Your task to perform on an android device: View the shopping cart on target.com. Add logitech g910 to the cart on target.com, then select checkout. Image 0: 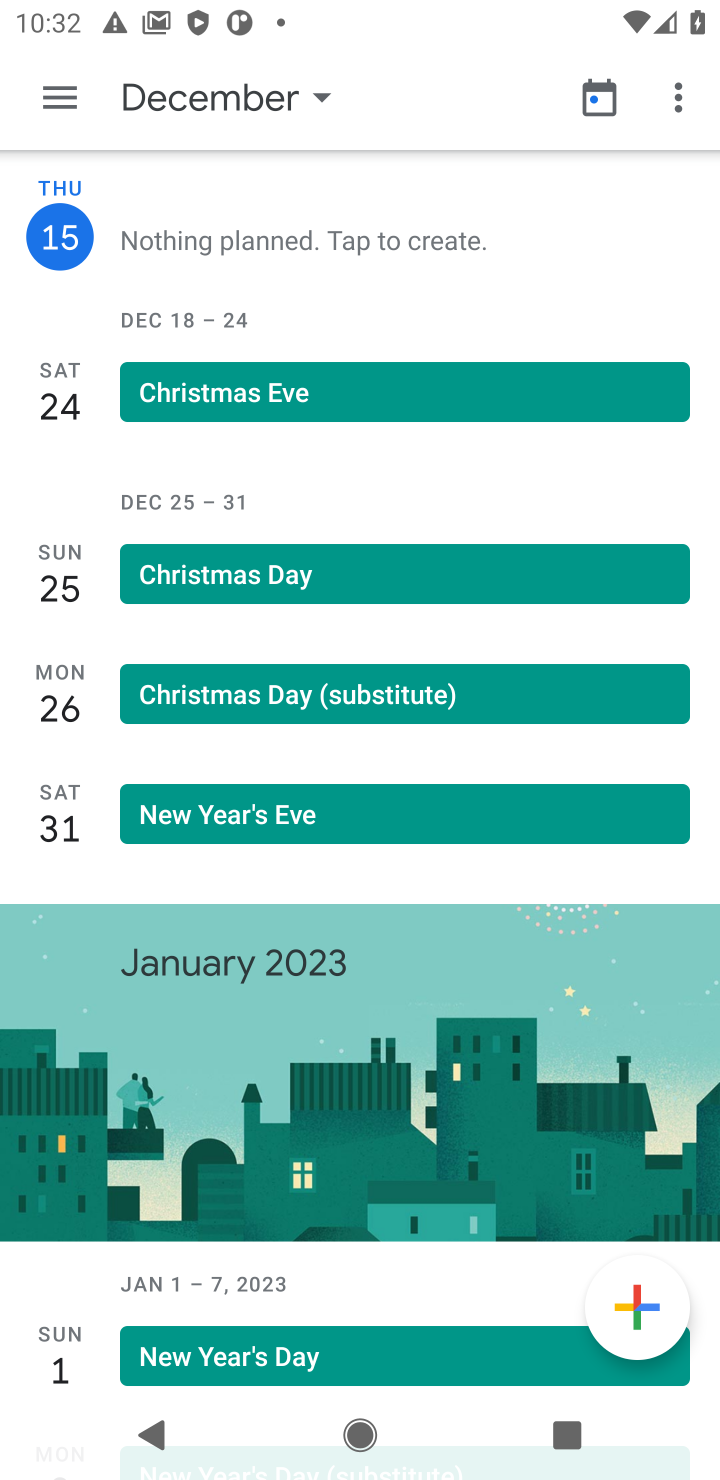
Step 0: press home button
Your task to perform on an android device: View the shopping cart on target.com. Add logitech g910 to the cart on target.com, then select checkout. Image 1: 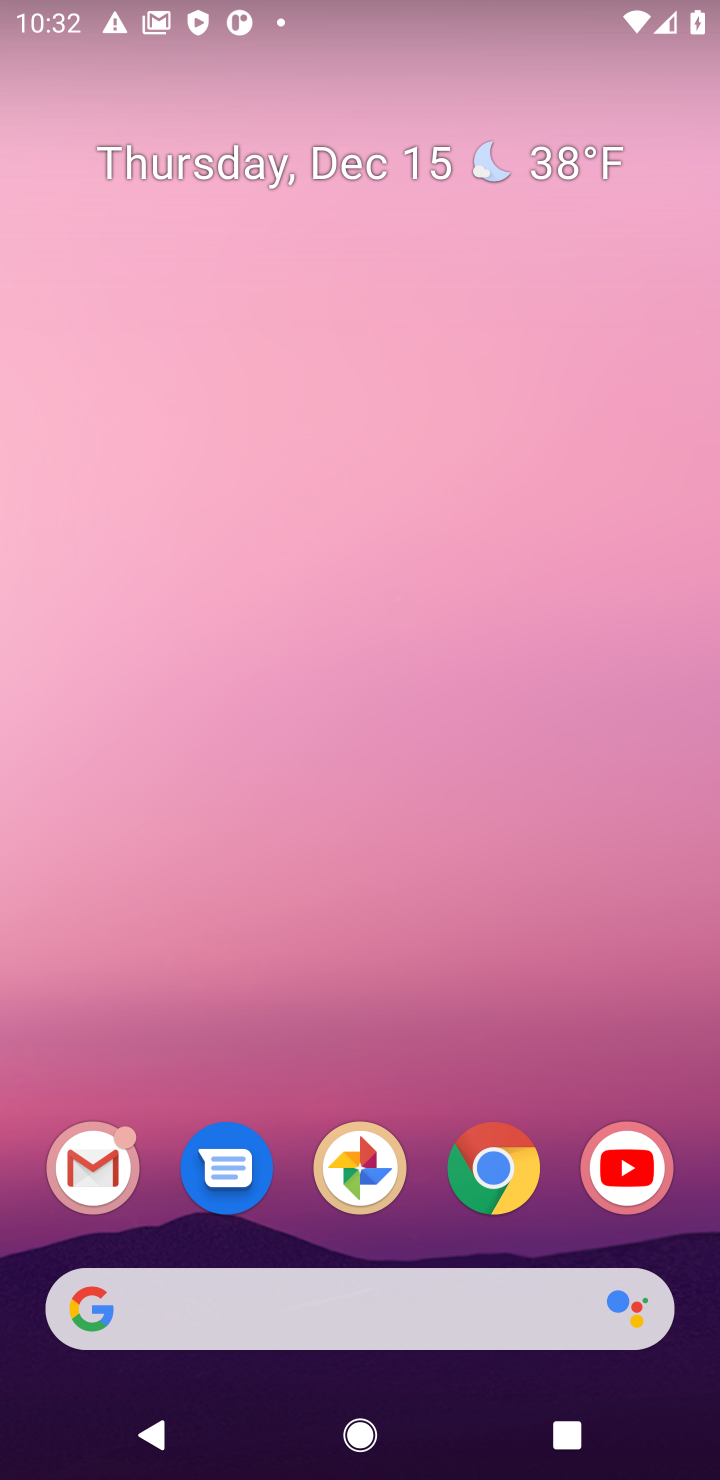
Step 1: click (495, 1164)
Your task to perform on an android device: View the shopping cart on target.com. Add logitech g910 to the cart on target.com, then select checkout. Image 2: 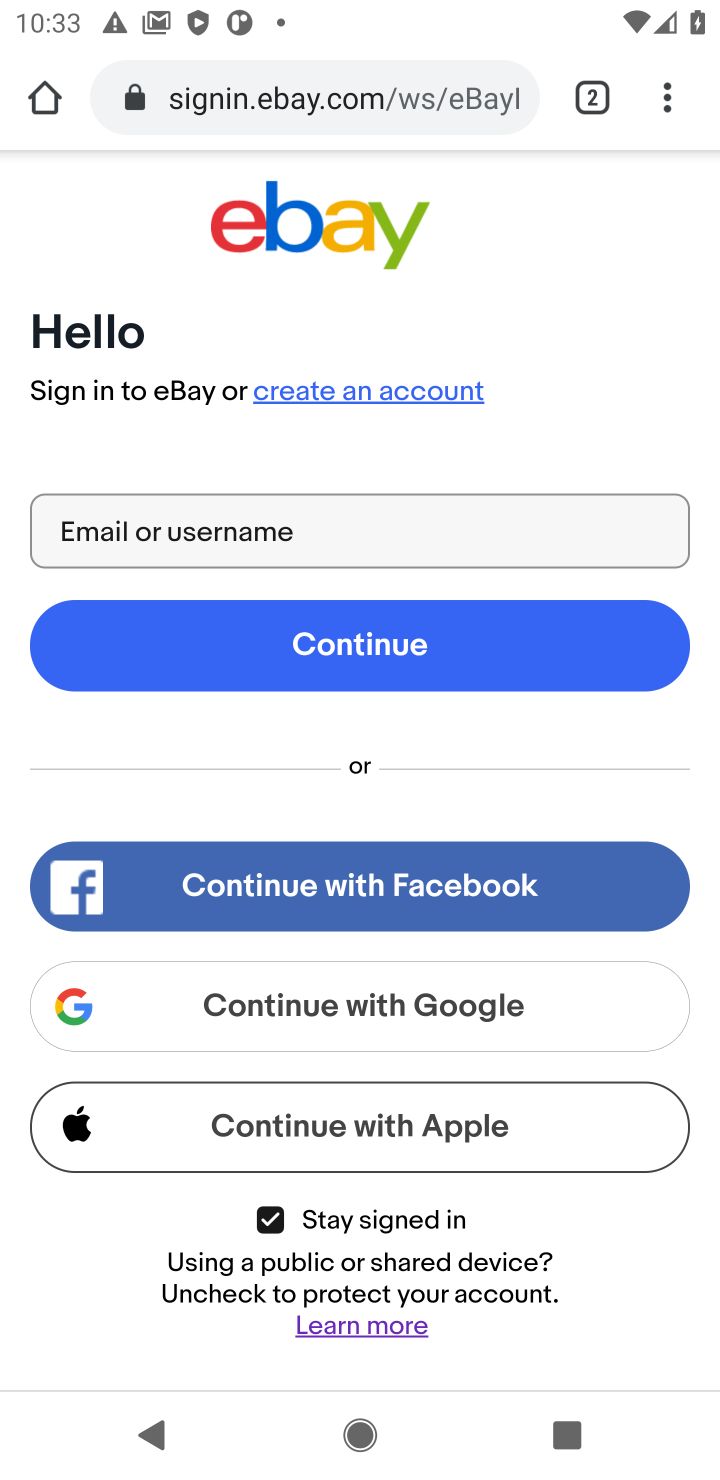
Step 2: click (295, 92)
Your task to perform on an android device: View the shopping cart on target.com. Add logitech g910 to the cart on target.com, then select checkout. Image 3: 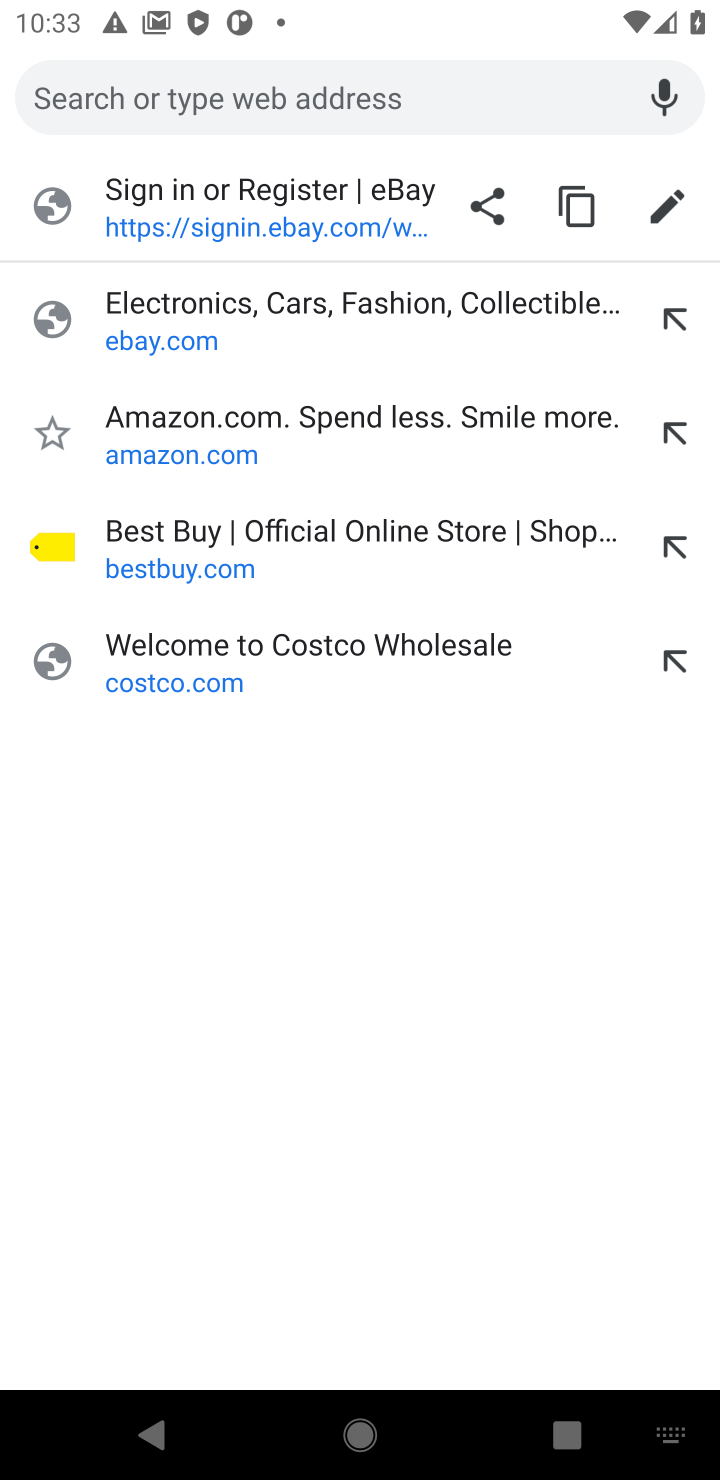
Step 3: type "target"
Your task to perform on an android device: View the shopping cart on target.com. Add logitech g910 to the cart on target.com, then select checkout. Image 4: 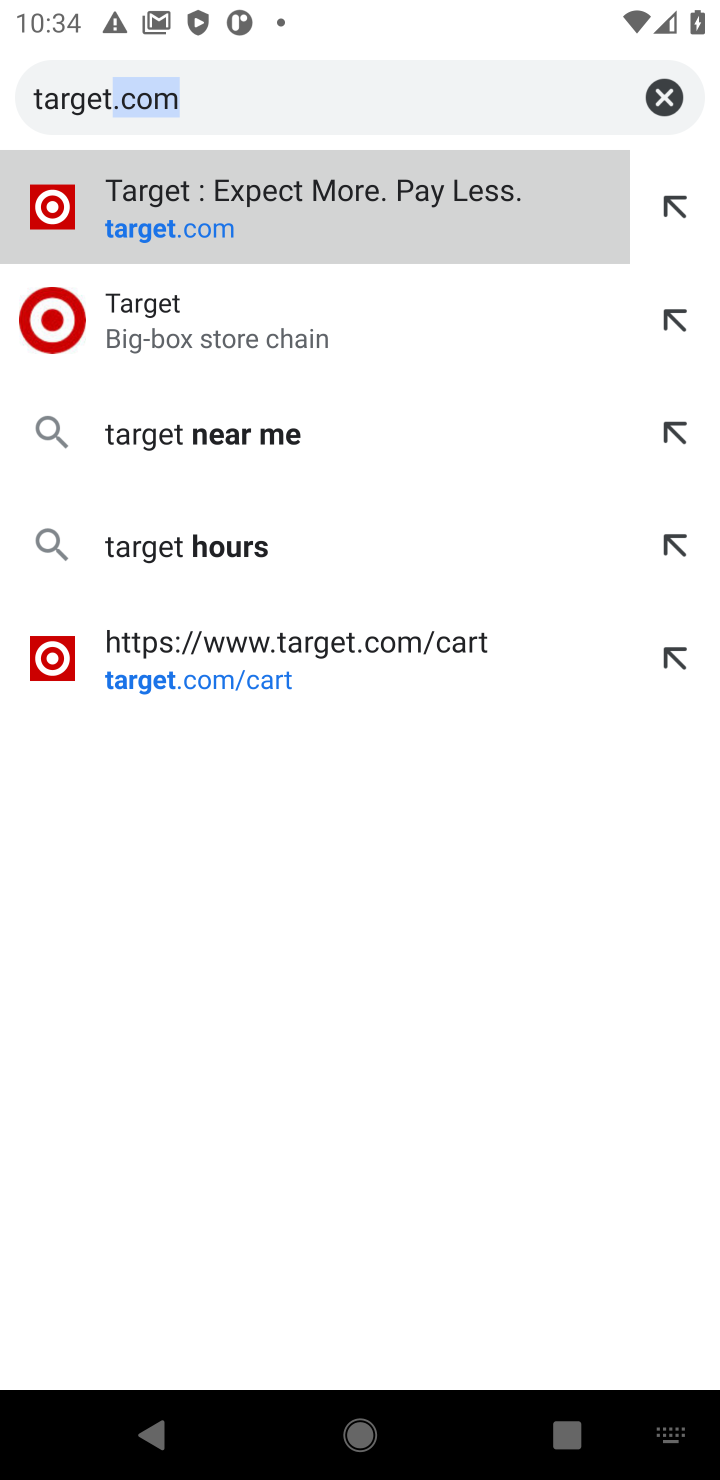
Step 4: click (495, 198)
Your task to perform on an android device: View the shopping cart on target.com. Add logitech g910 to the cart on target.com, then select checkout. Image 5: 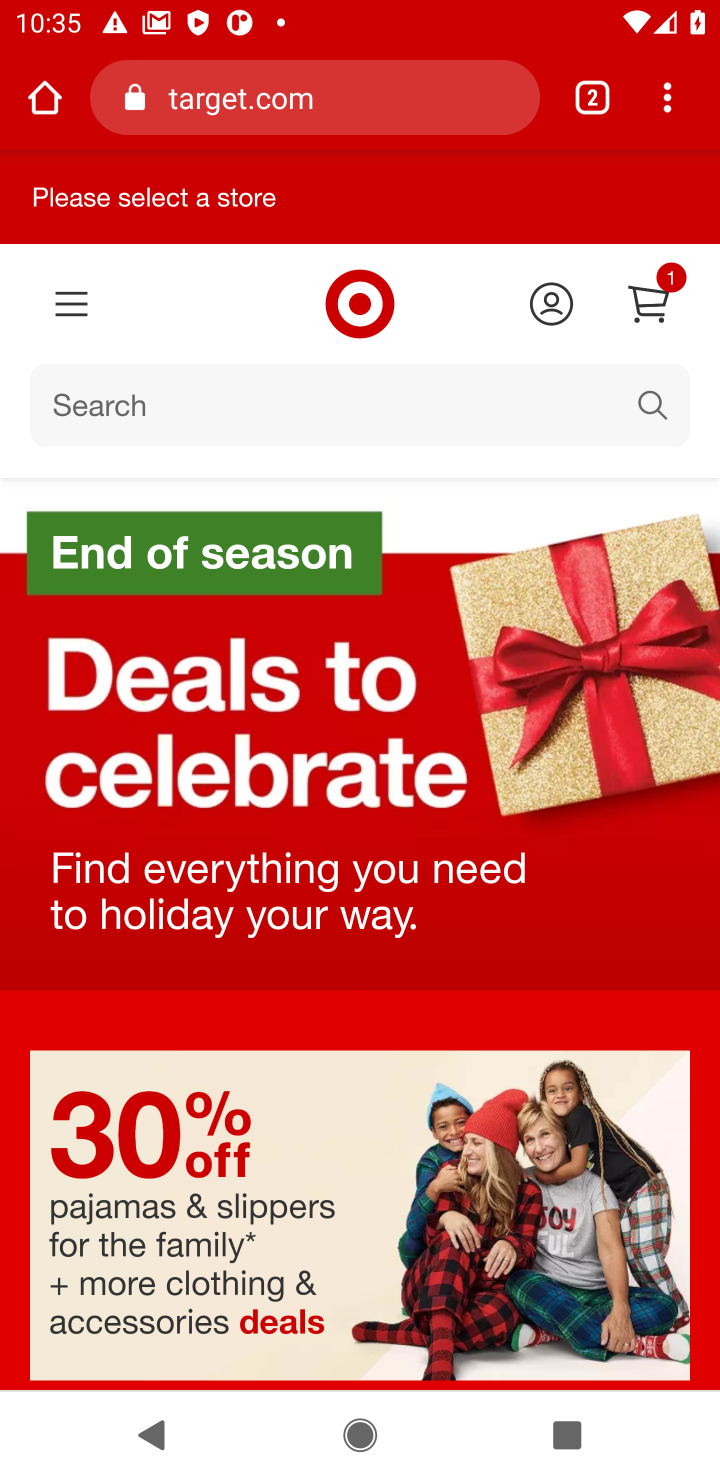
Step 5: click (342, 389)
Your task to perform on an android device: View the shopping cart on target.com. Add logitech g910 to the cart on target.com, then select checkout. Image 6: 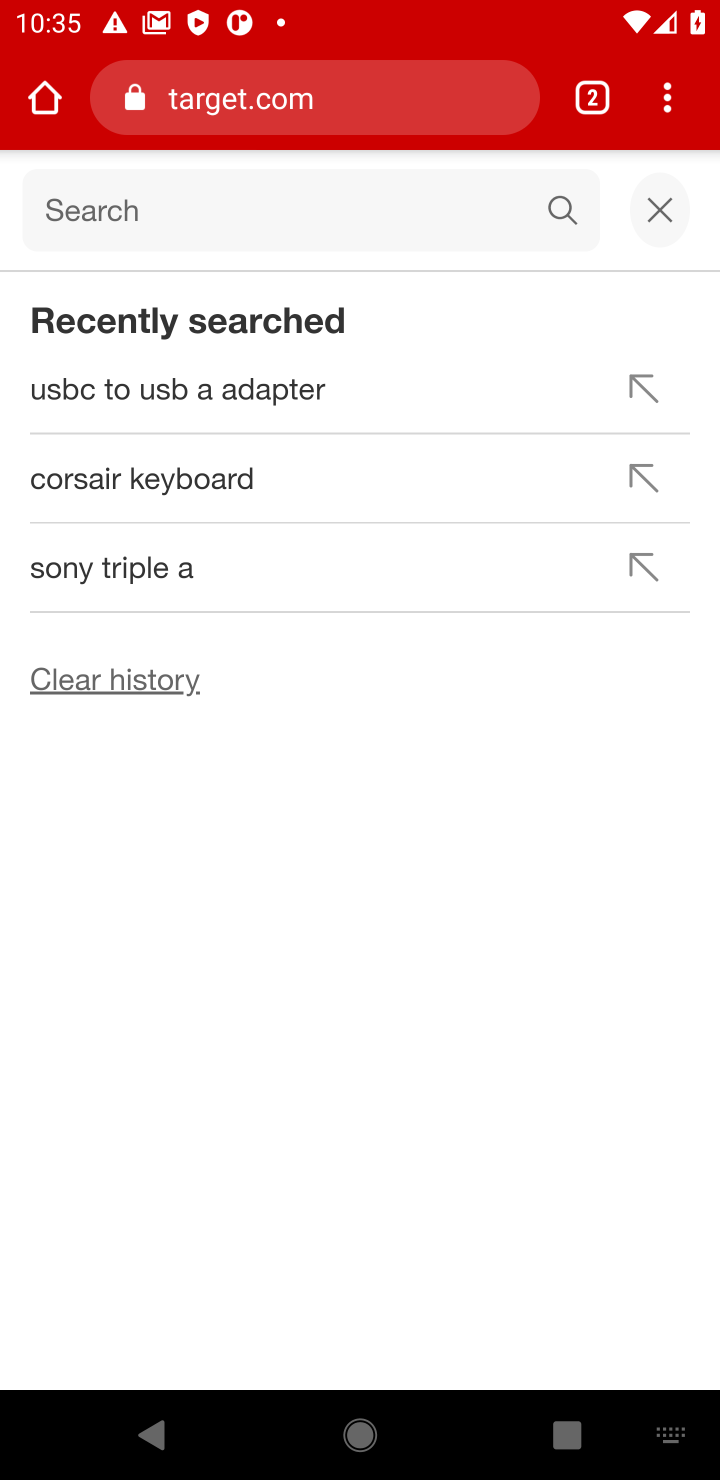
Step 6: type "logitech g910 "
Your task to perform on an android device: View the shopping cart on target.com. Add logitech g910 to the cart on target.com, then select checkout. Image 7: 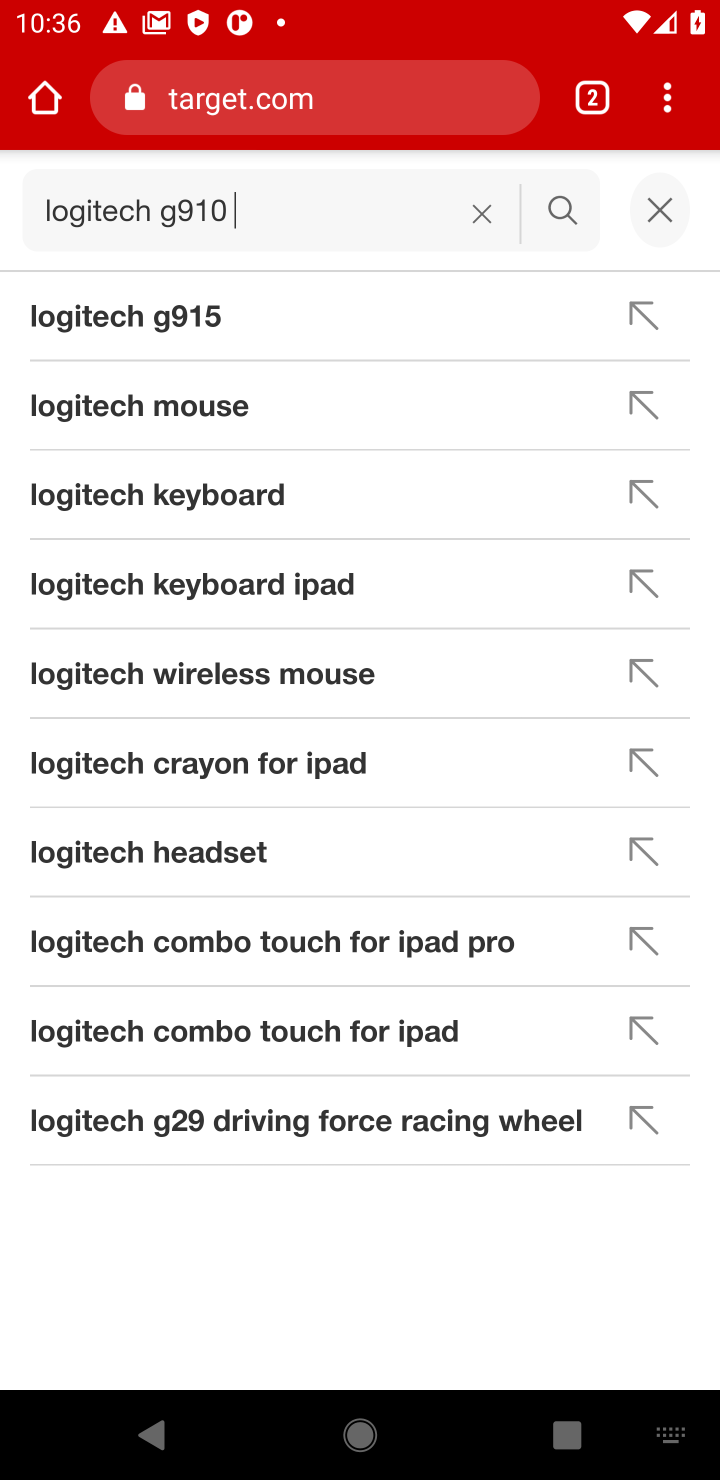
Step 7: click (253, 304)
Your task to perform on an android device: View the shopping cart on target.com. Add logitech g910 to the cart on target.com, then select checkout. Image 8: 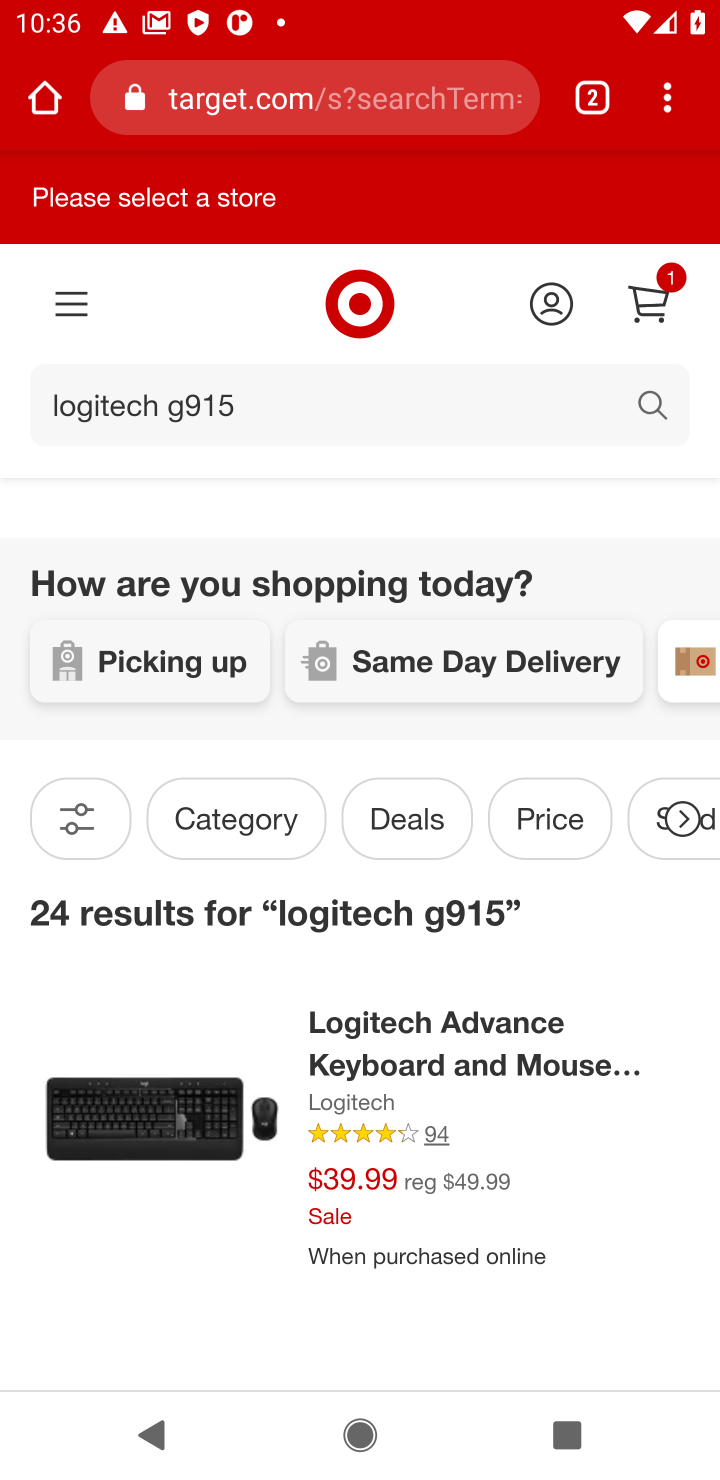
Step 8: click (537, 1075)
Your task to perform on an android device: View the shopping cart on target.com. Add logitech g910 to the cart on target.com, then select checkout. Image 9: 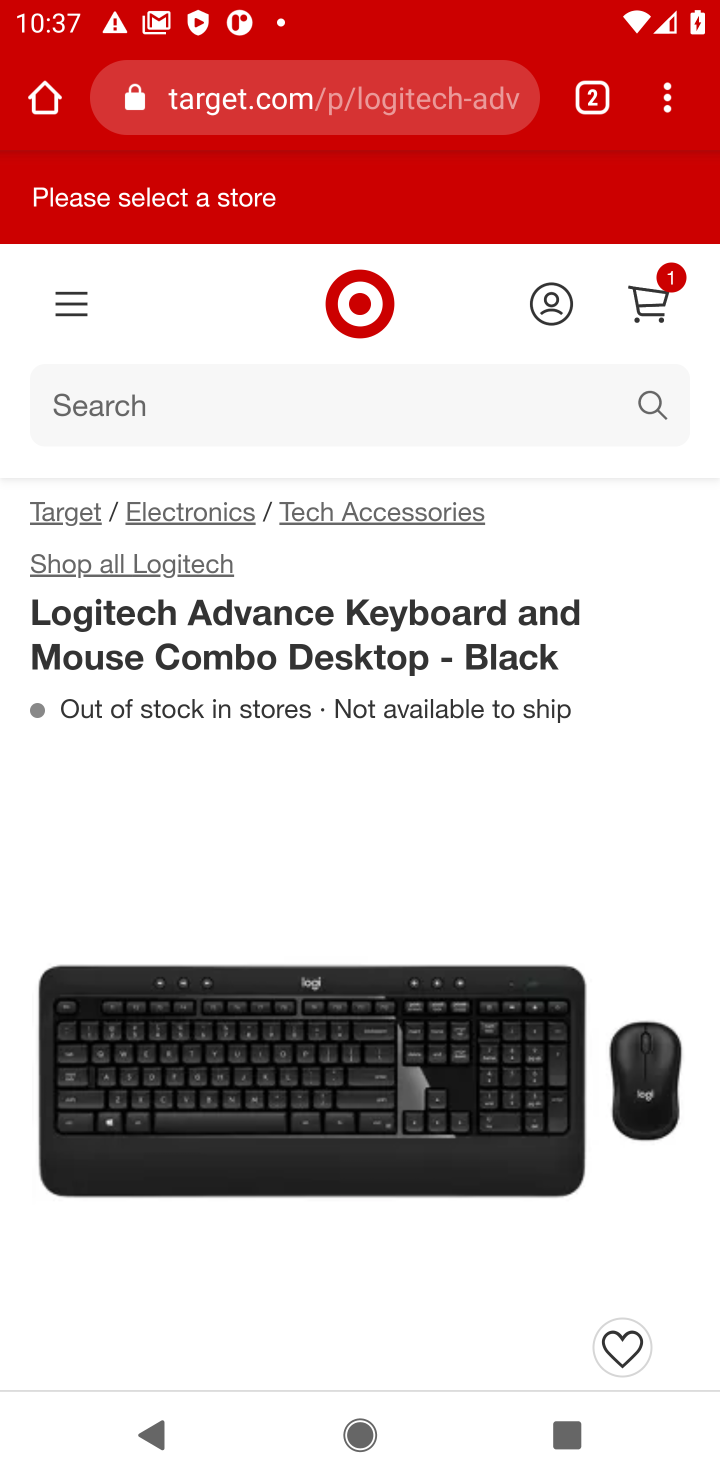
Step 9: drag from (480, 1020) to (485, 238)
Your task to perform on an android device: View the shopping cart on target.com. Add logitech g910 to the cart on target.com, then select checkout. Image 10: 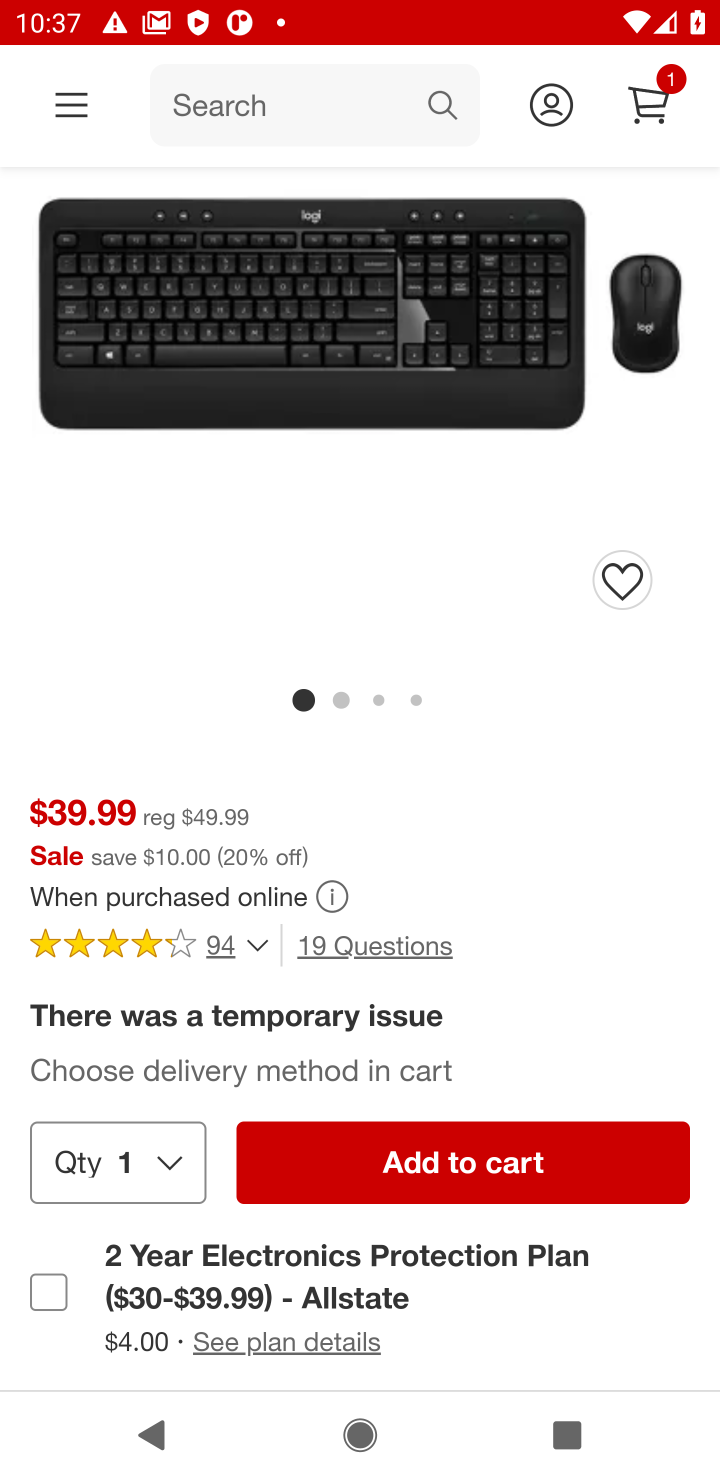
Step 10: click (448, 1162)
Your task to perform on an android device: View the shopping cart on target.com. Add logitech g910 to the cart on target.com, then select checkout. Image 11: 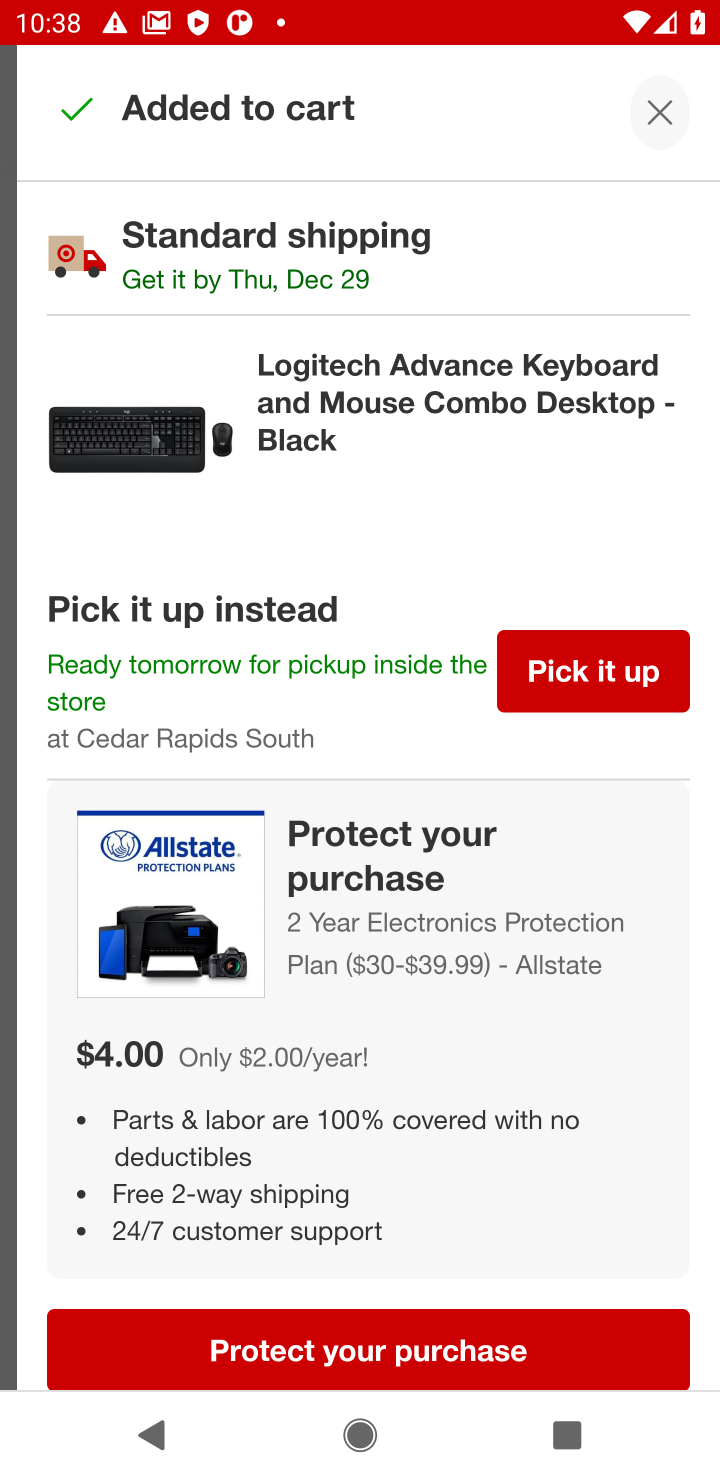
Step 11: task complete